Your task to perform on an android device: turn smart compose on in the gmail app Image 0: 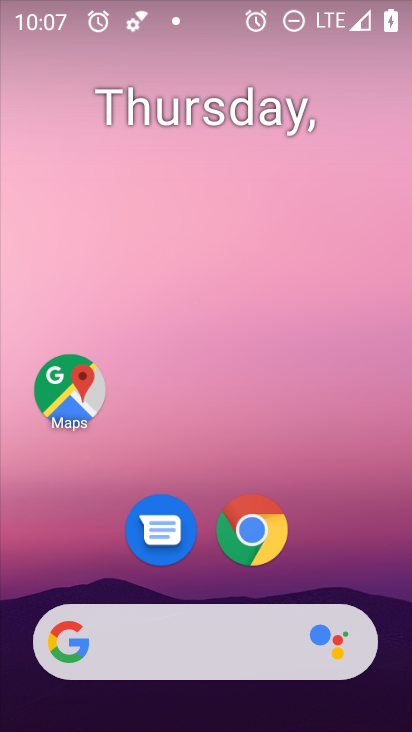
Step 0: drag from (360, 575) to (225, 0)
Your task to perform on an android device: turn smart compose on in the gmail app Image 1: 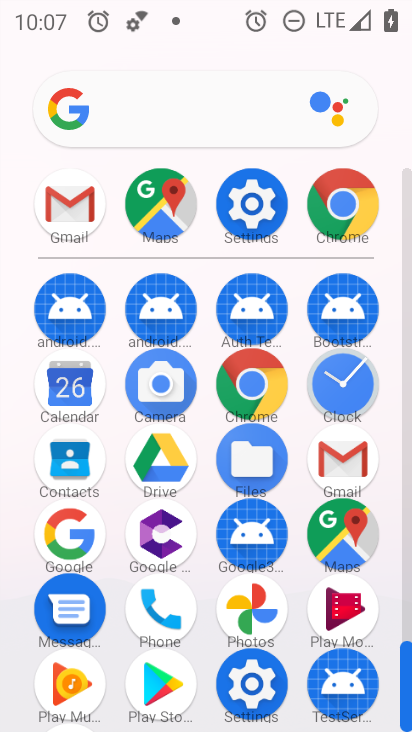
Step 1: drag from (13, 612) to (15, 303)
Your task to perform on an android device: turn smart compose on in the gmail app Image 2: 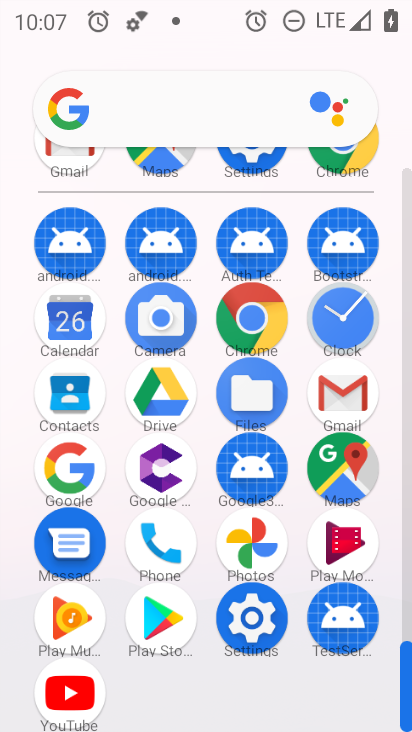
Step 2: click (338, 385)
Your task to perform on an android device: turn smart compose on in the gmail app Image 3: 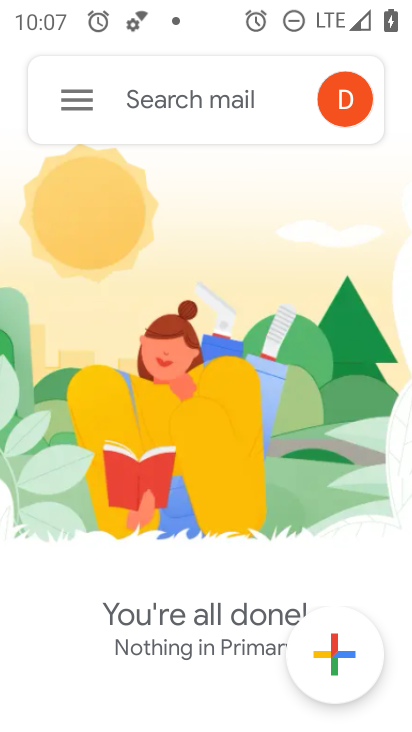
Step 3: click (91, 84)
Your task to perform on an android device: turn smart compose on in the gmail app Image 4: 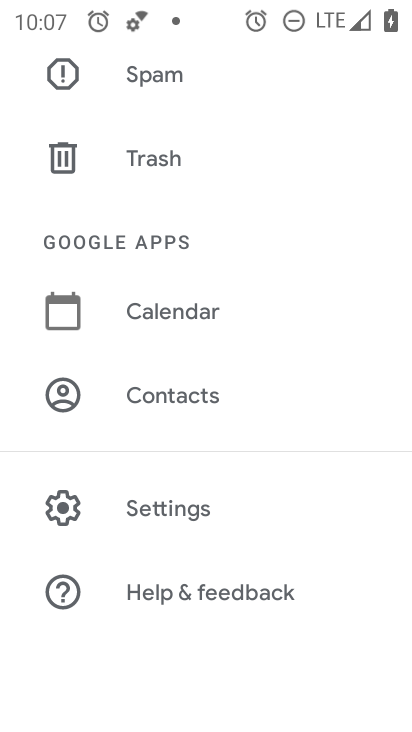
Step 4: click (189, 507)
Your task to perform on an android device: turn smart compose on in the gmail app Image 5: 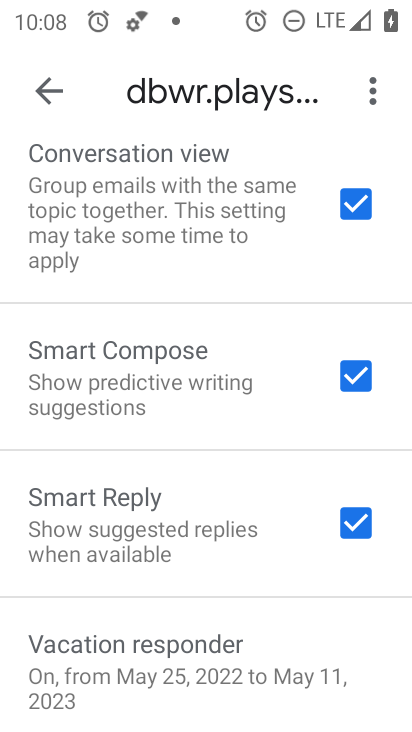
Step 5: task complete